Your task to perform on an android device: install app "Truecaller" Image 0: 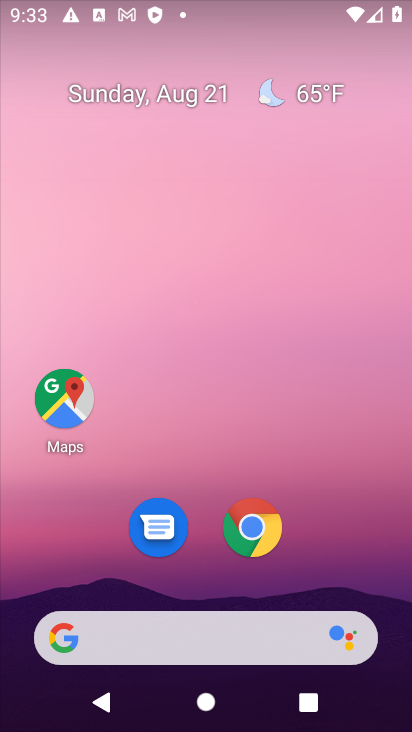
Step 0: drag from (212, 600) to (172, 92)
Your task to perform on an android device: install app "Truecaller" Image 1: 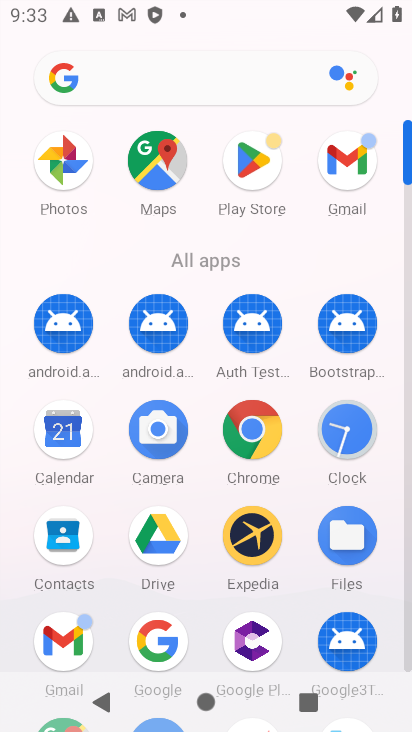
Step 1: click (257, 166)
Your task to perform on an android device: install app "Truecaller" Image 2: 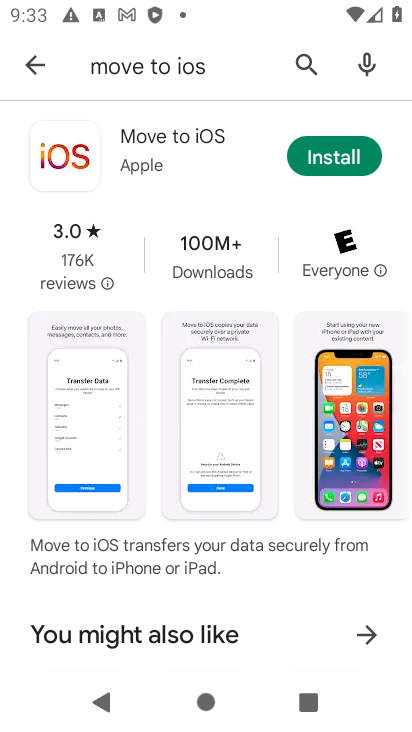
Step 2: click (195, 76)
Your task to perform on an android device: install app "Truecaller" Image 3: 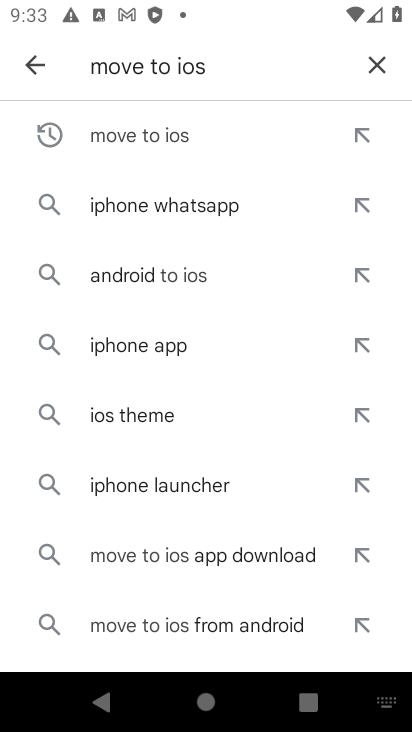
Step 3: click (374, 62)
Your task to perform on an android device: install app "Truecaller" Image 4: 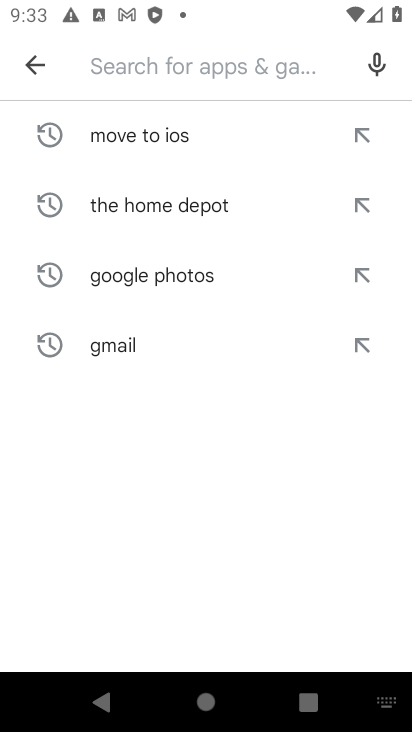
Step 4: type "truecaller"
Your task to perform on an android device: install app "Truecaller" Image 5: 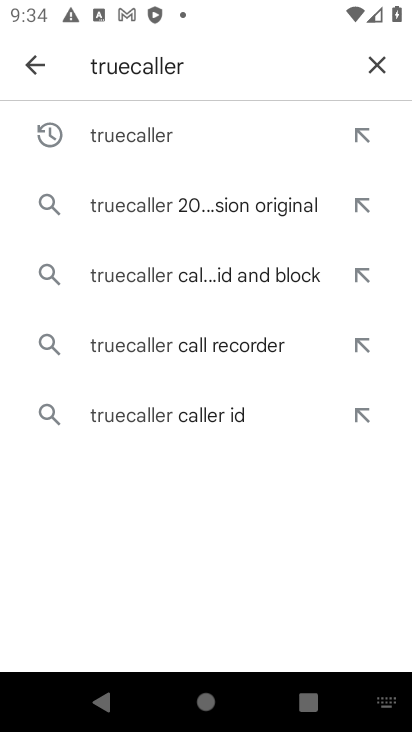
Step 5: click (188, 157)
Your task to perform on an android device: install app "Truecaller" Image 6: 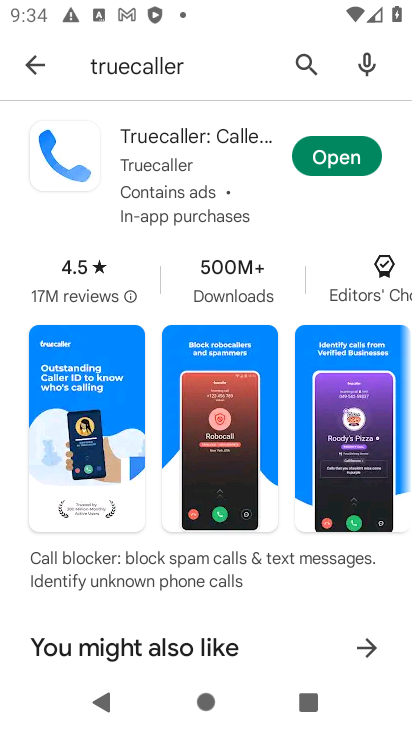
Step 6: task complete